Your task to perform on an android device: Find coffee shops on Maps Image 0: 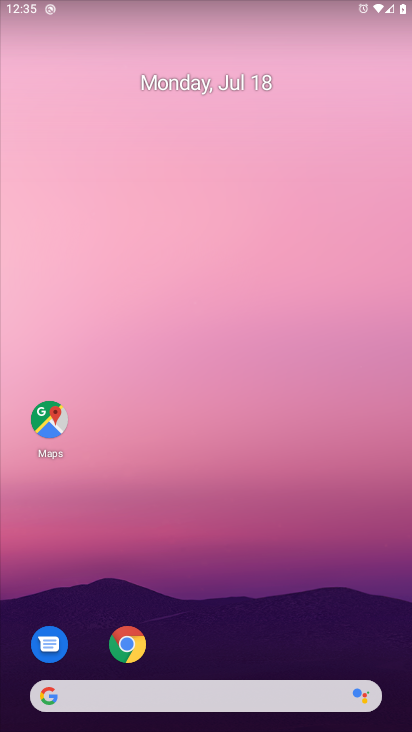
Step 0: press home button
Your task to perform on an android device: Find coffee shops on Maps Image 1: 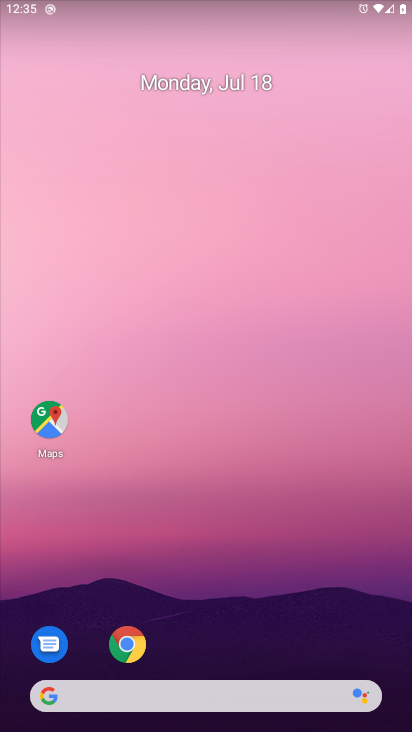
Step 1: click (36, 409)
Your task to perform on an android device: Find coffee shops on Maps Image 2: 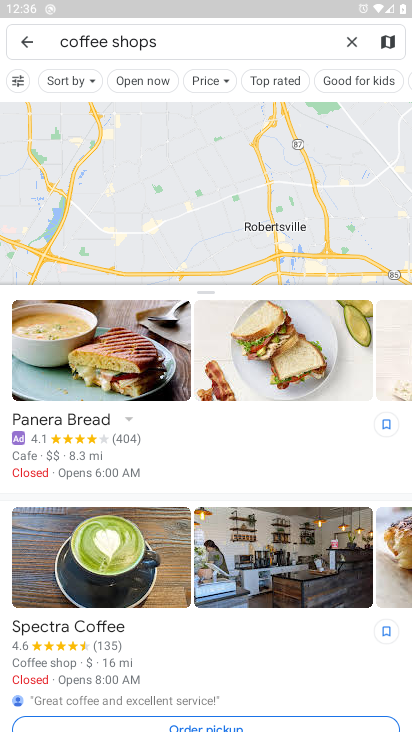
Step 2: task complete